Your task to perform on an android device: Search for 4k TVs on Best Buy. Image 0: 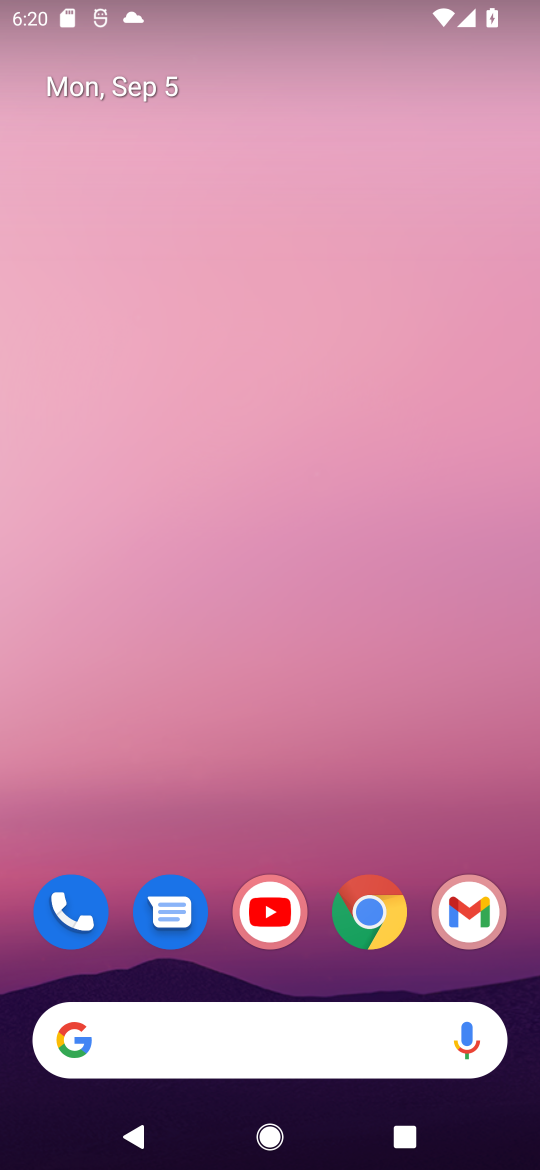
Step 0: click (367, 913)
Your task to perform on an android device: Search for 4k TVs on Best Buy. Image 1: 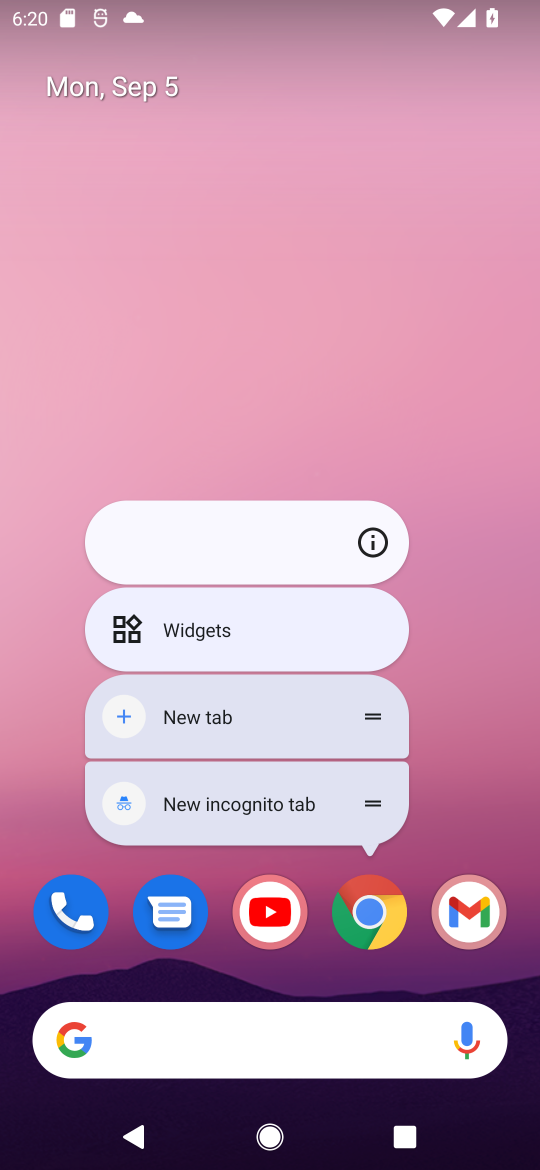
Step 1: click (367, 913)
Your task to perform on an android device: Search for 4k TVs on Best Buy. Image 2: 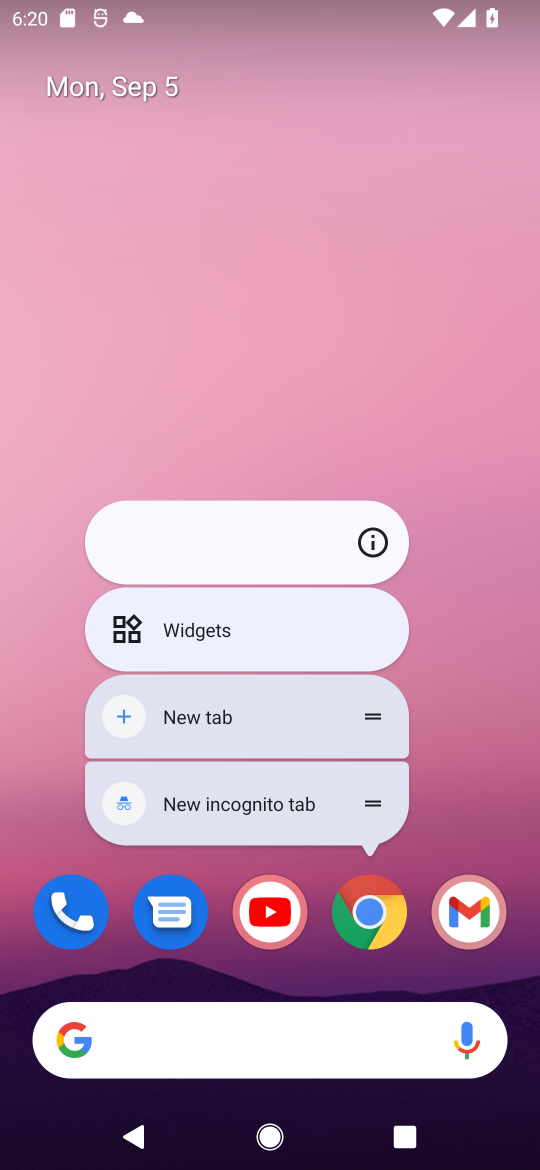
Step 2: click (367, 913)
Your task to perform on an android device: Search for 4k TVs on Best Buy. Image 3: 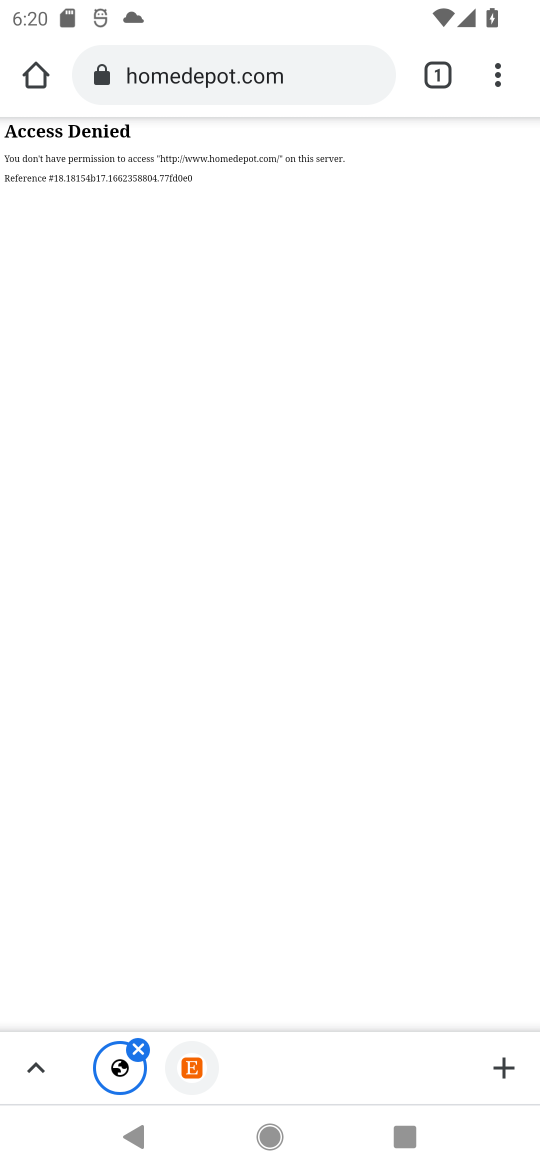
Step 3: click (252, 74)
Your task to perform on an android device: Search for 4k TVs on Best Buy. Image 4: 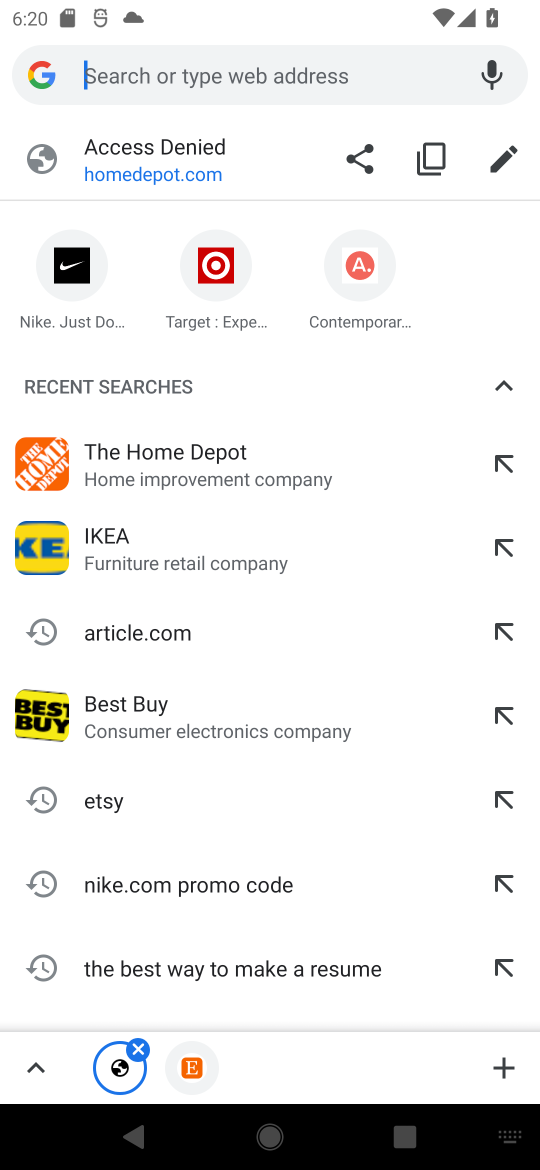
Step 4: type "Best buy"
Your task to perform on an android device: Search for 4k TVs on Best Buy. Image 5: 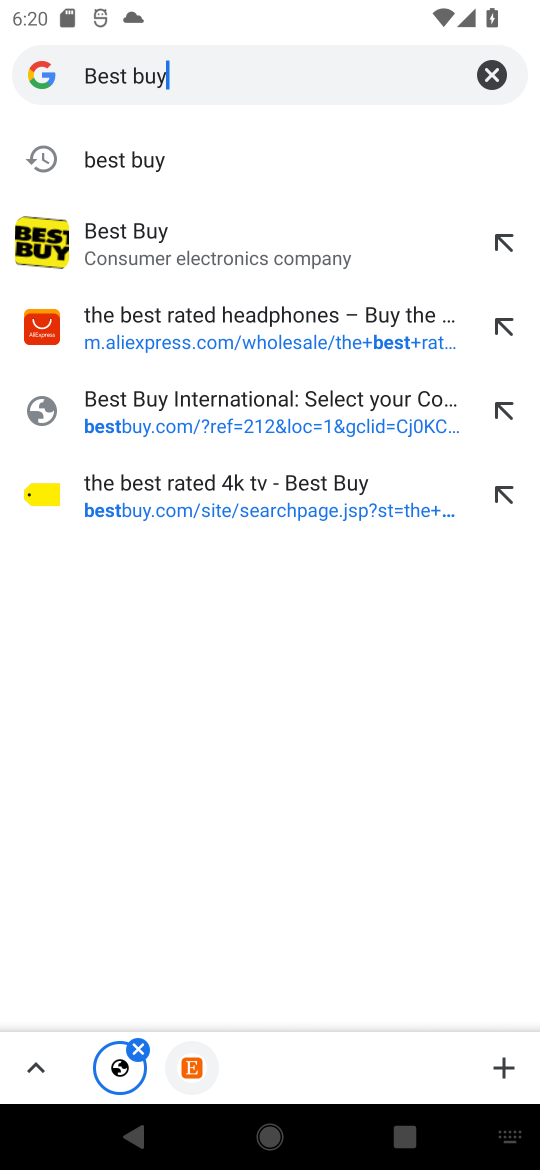
Step 5: click (132, 250)
Your task to perform on an android device: Search for 4k TVs on Best Buy. Image 6: 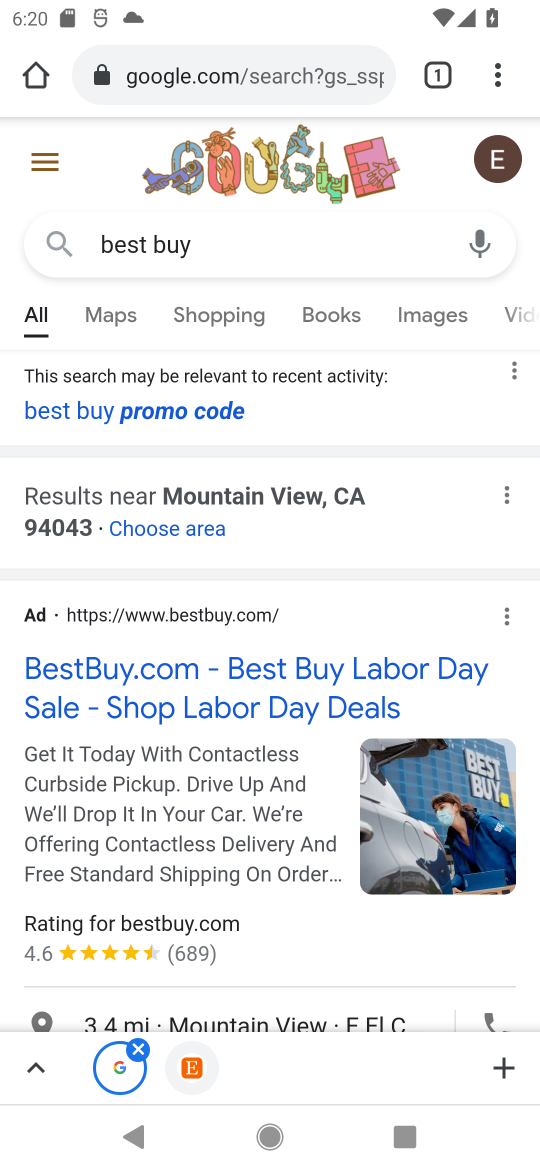
Step 6: click (227, 712)
Your task to perform on an android device: Search for 4k TVs on Best Buy. Image 7: 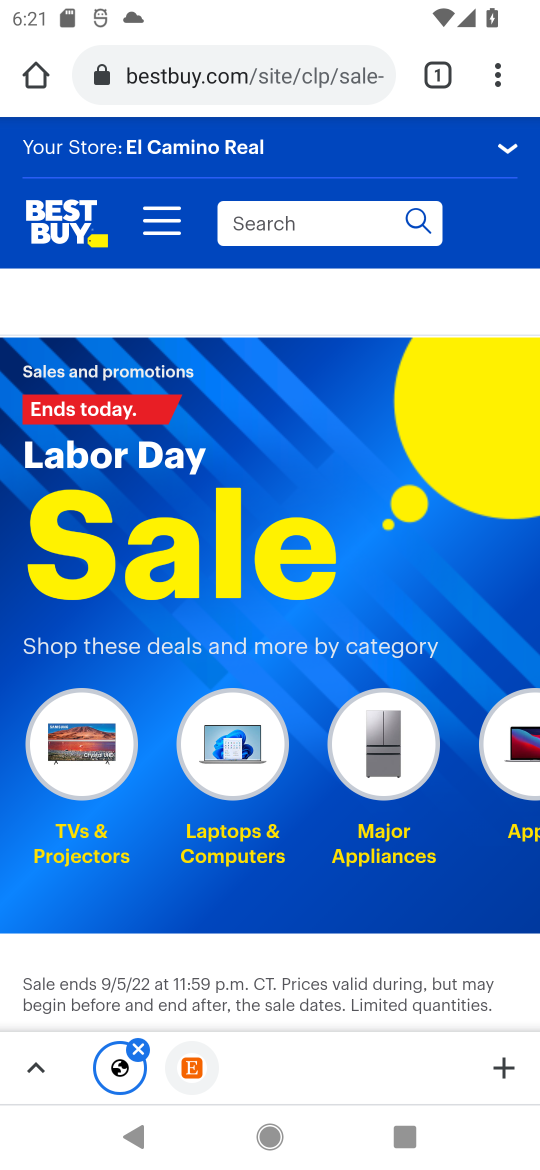
Step 7: click (294, 228)
Your task to perform on an android device: Search for 4k TVs on Best Buy. Image 8: 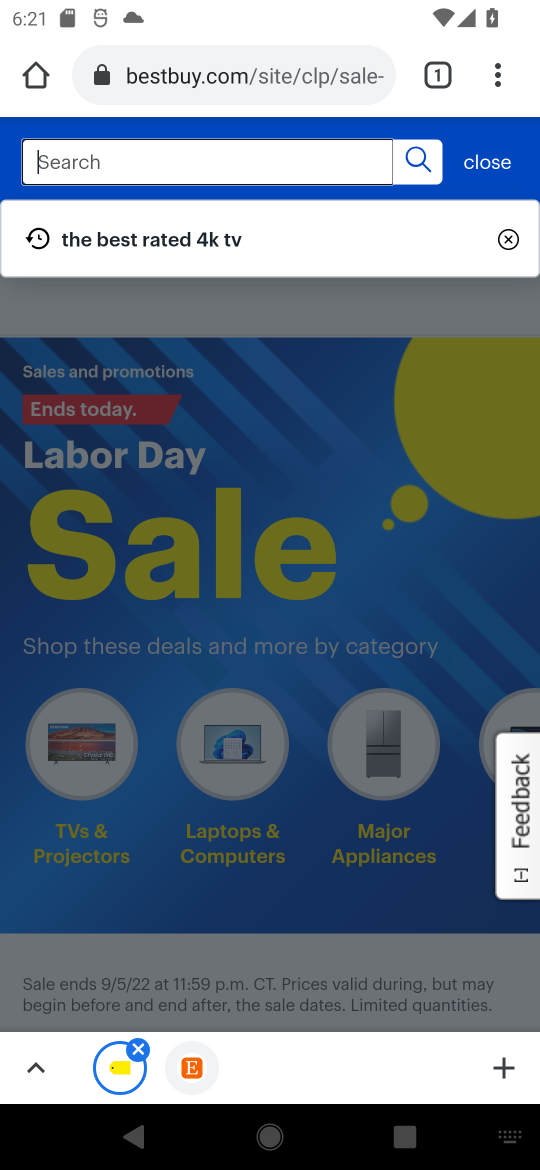
Step 8: type "4K TVs"
Your task to perform on an android device: Search for 4k TVs on Best Buy. Image 9: 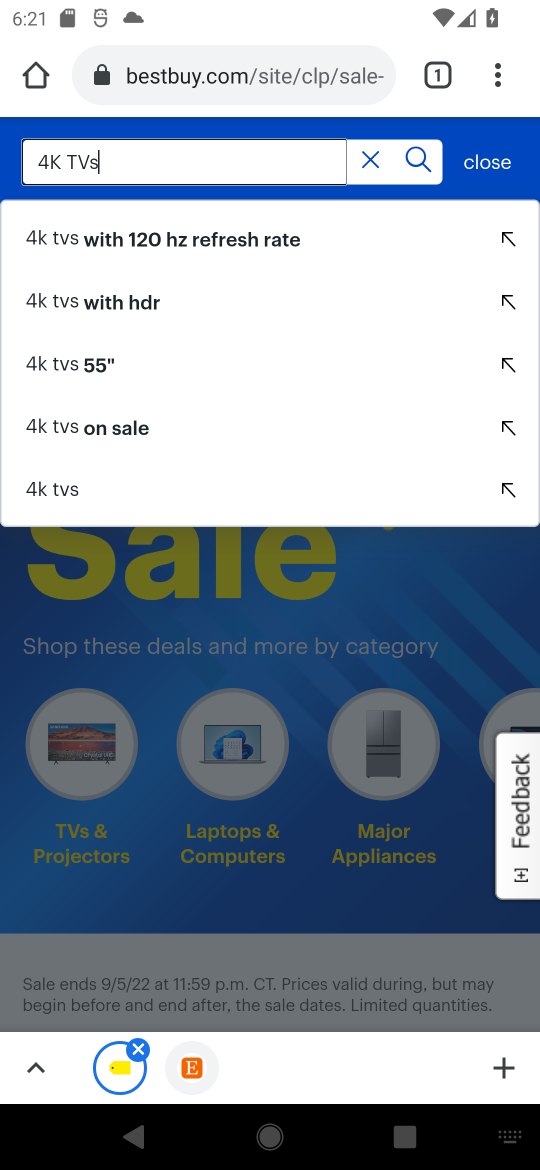
Step 9: click (63, 479)
Your task to perform on an android device: Search for 4k TVs on Best Buy. Image 10: 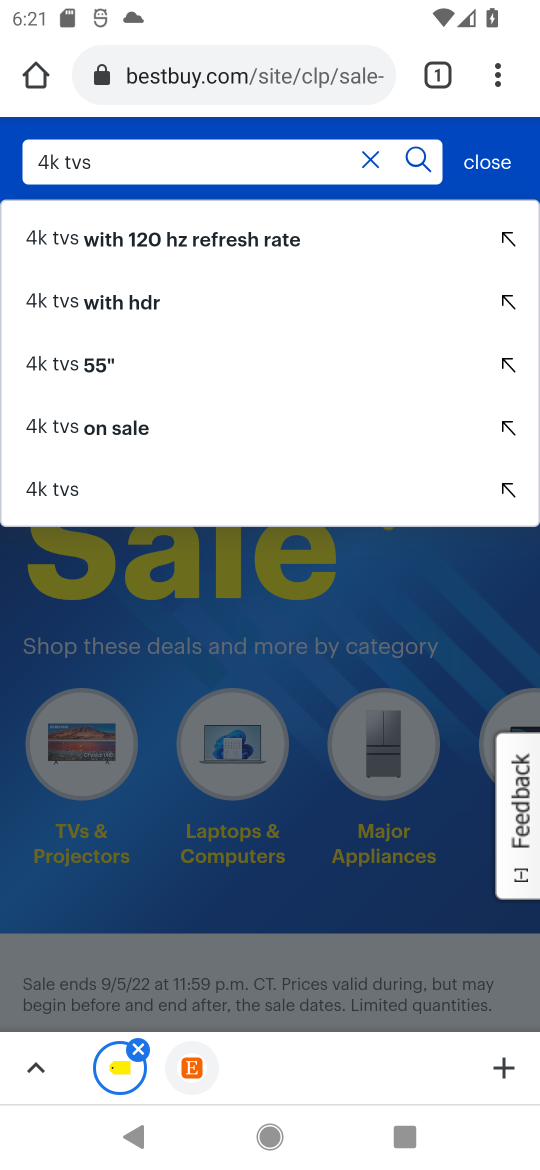
Step 10: click (63, 479)
Your task to perform on an android device: Search for 4k TVs on Best Buy. Image 11: 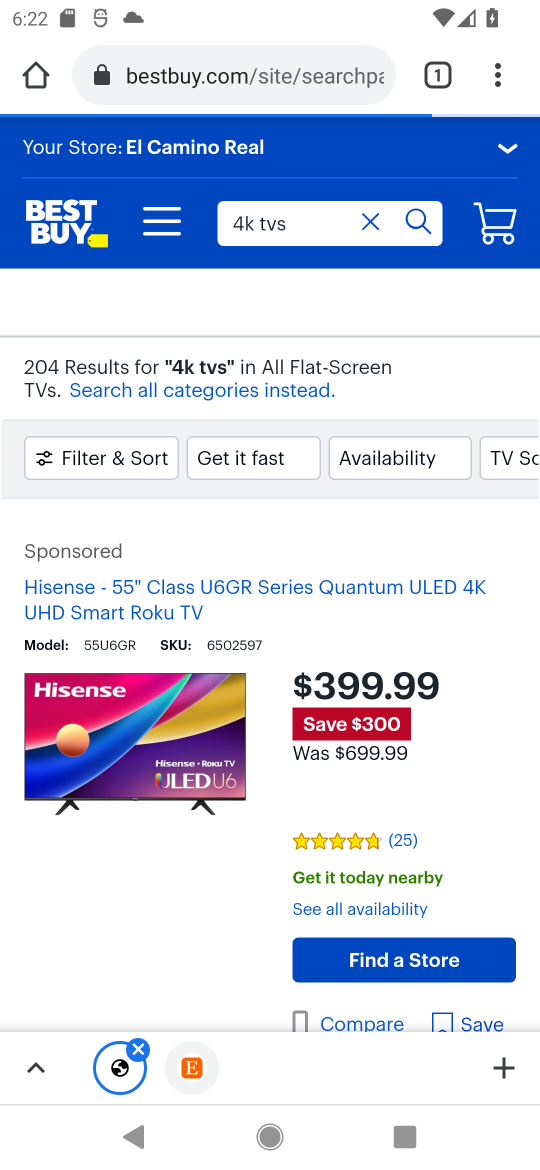
Step 11: task complete